Your task to perform on an android device: turn off wifi Image 0: 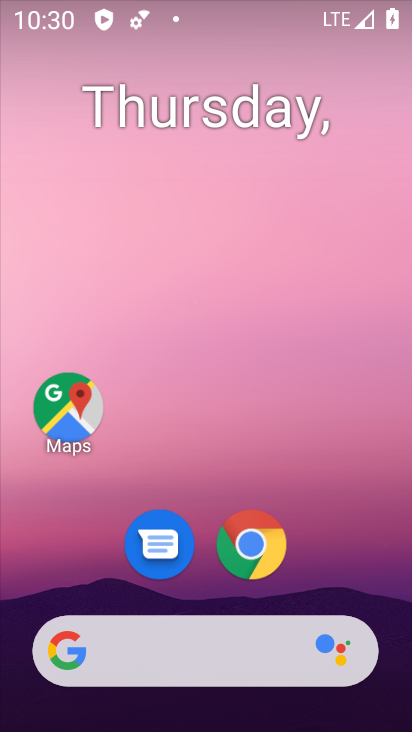
Step 0: drag from (206, 288) to (93, 61)
Your task to perform on an android device: turn off wifi Image 1: 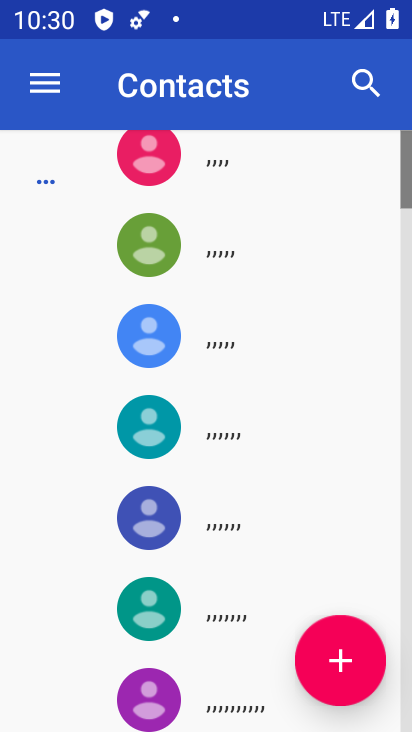
Step 1: press home button
Your task to perform on an android device: turn off wifi Image 2: 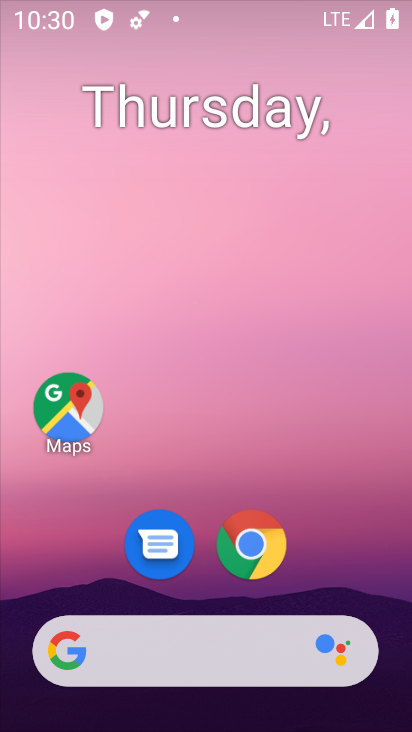
Step 2: drag from (356, 529) to (99, 100)
Your task to perform on an android device: turn off wifi Image 3: 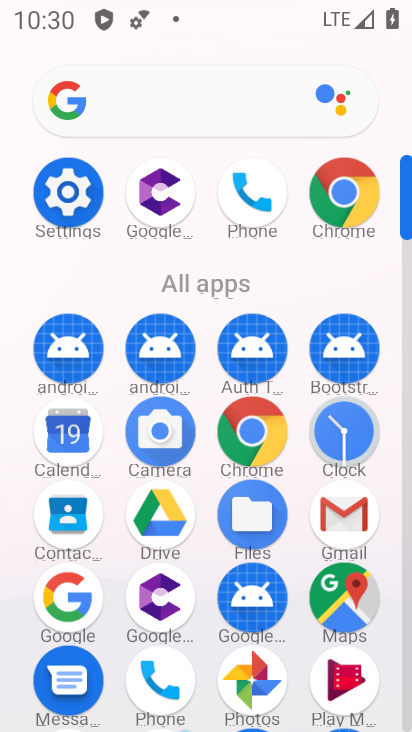
Step 3: click (61, 169)
Your task to perform on an android device: turn off wifi Image 4: 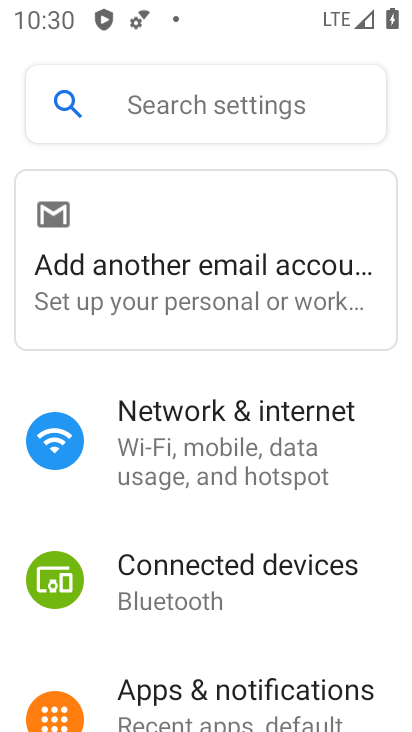
Step 4: click (189, 439)
Your task to perform on an android device: turn off wifi Image 5: 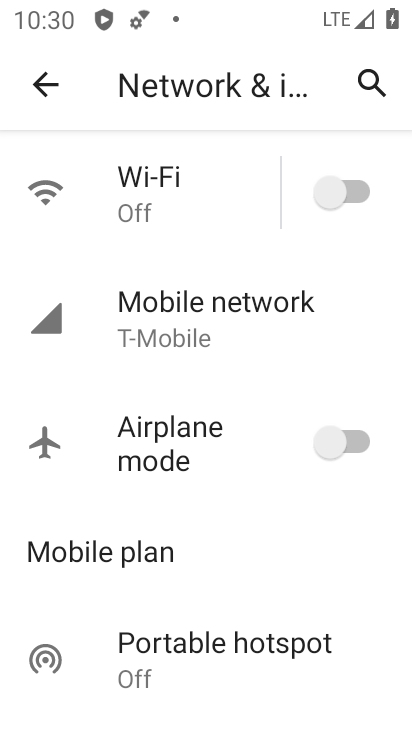
Step 5: task complete